Your task to perform on an android device: Go to Amazon Image 0: 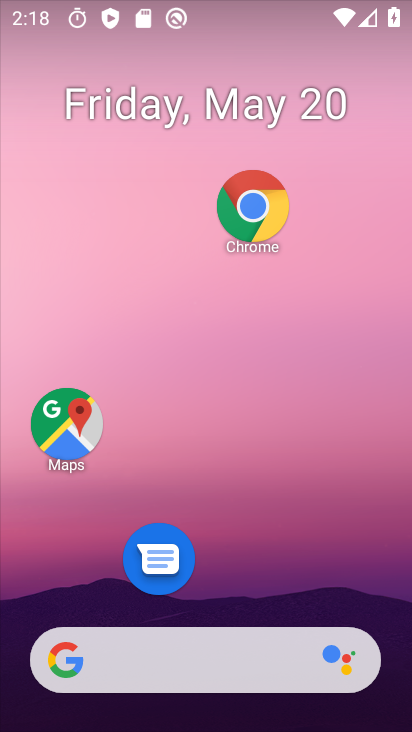
Step 0: drag from (245, 618) to (180, 8)
Your task to perform on an android device: Go to Amazon Image 1: 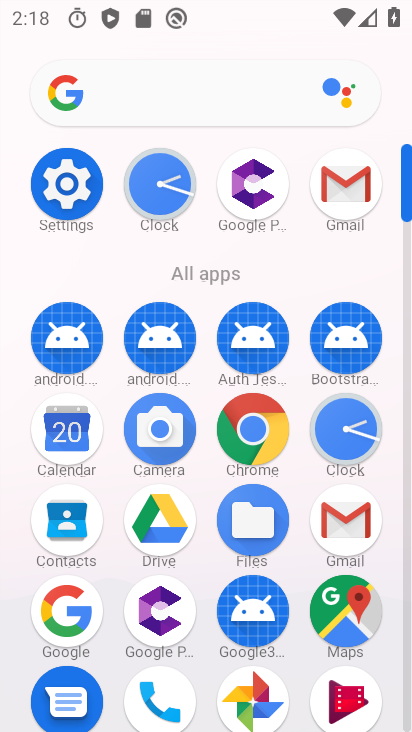
Step 1: click (258, 436)
Your task to perform on an android device: Go to Amazon Image 2: 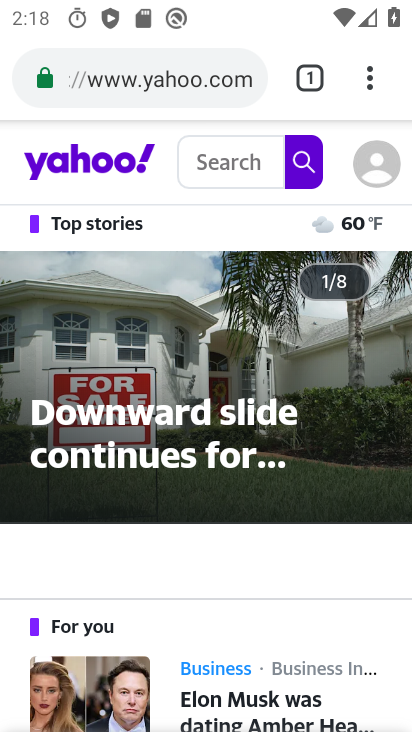
Step 2: click (293, 83)
Your task to perform on an android device: Go to Amazon Image 3: 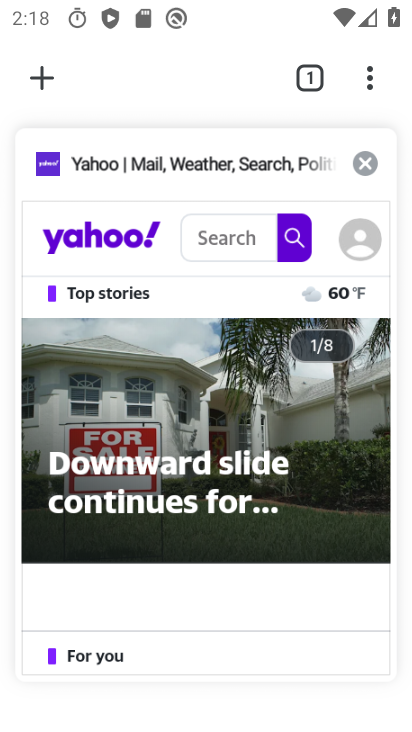
Step 3: click (46, 75)
Your task to perform on an android device: Go to Amazon Image 4: 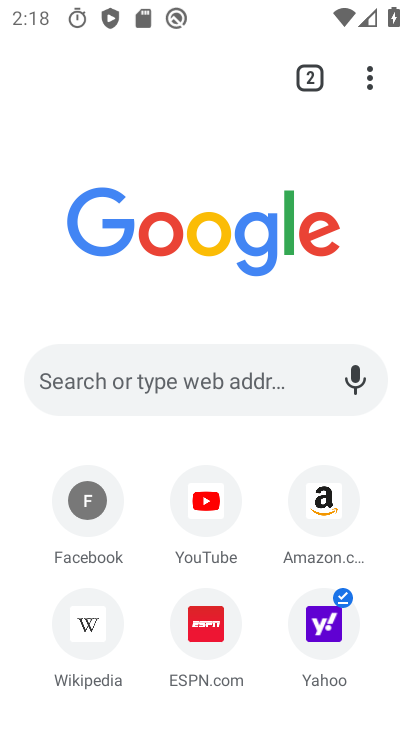
Step 4: click (339, 495)
Your task to perform on an android device: Go to Amazon Image 5: 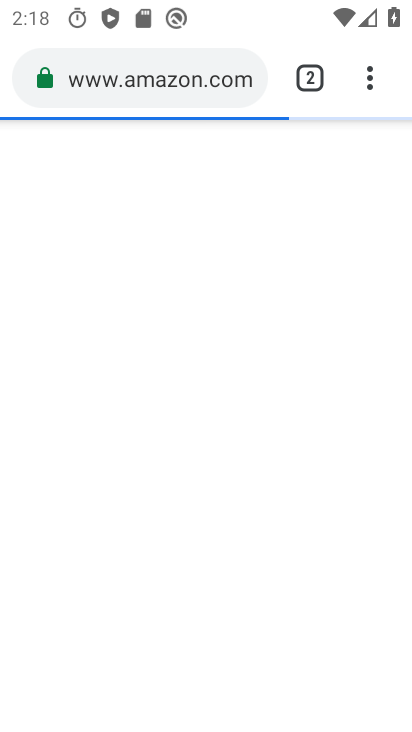
Step 5: task complete